Your task to perform on an android device: Go to network settings Image 0: 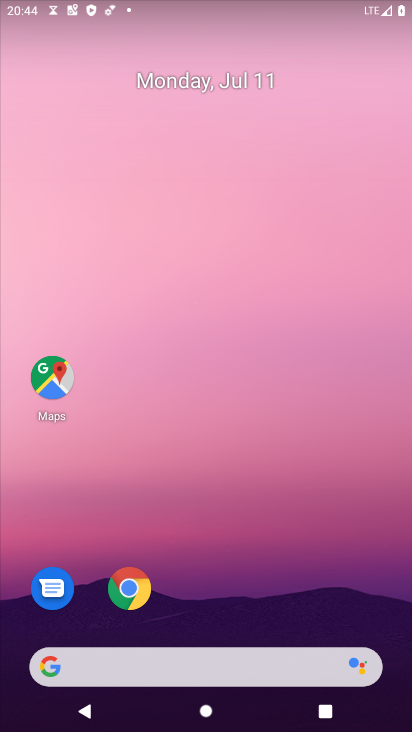
Step 0: press home button
Your task to perform on an android device: Go to network settings Image 1: 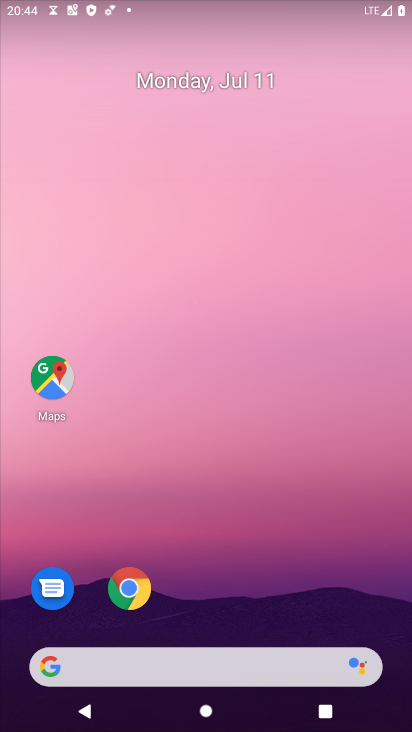
Step 1: drag from (255, 619) to (209, 157)
Your task to perform on an android device: Go to network settings Image 2: 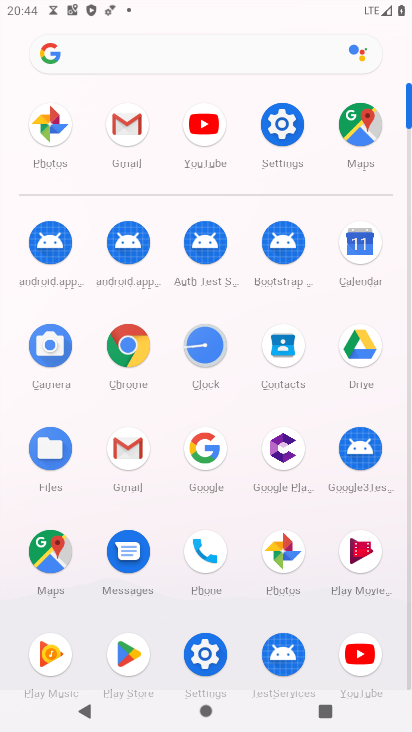
Step 2: click (283, 133)
Your task to perform on an android device: Go to network settings Image 3: 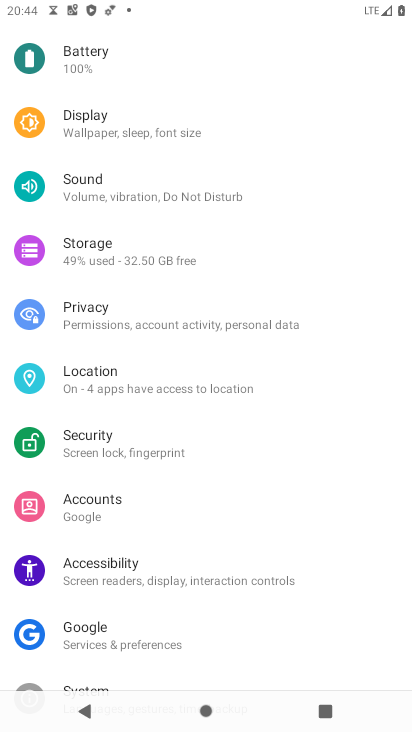
Step 3: drag from (228, 79) to (361, 705)
Your task to perform on an android device: Go to network settings Image 4: 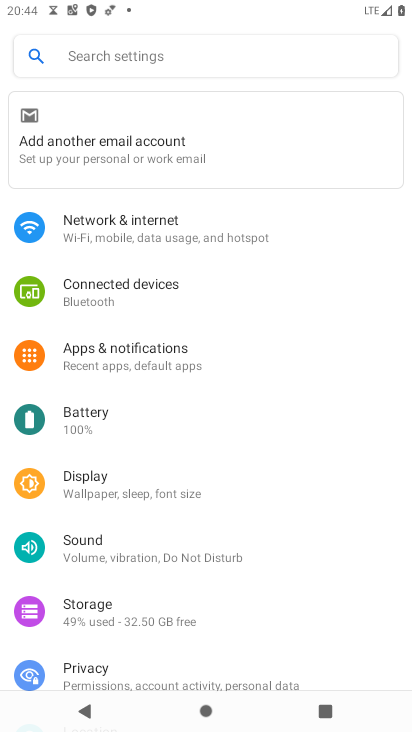
Step 4: click (124, 231)
Your task to perform on an android device: Go to network settings Image 5: 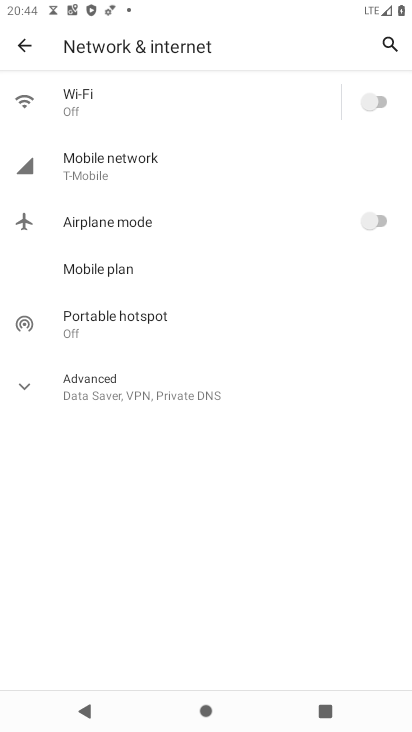
Step 5: task complete